Your task to perform on an android device: Search for Mexican restaurants on Maps Image 0: 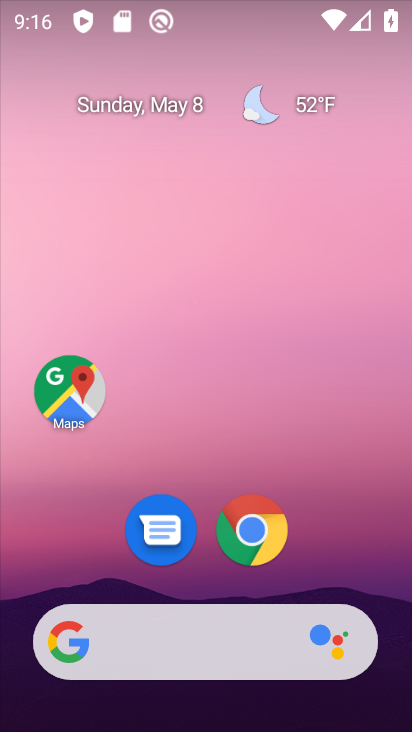
Step 0: click (63, 414)
Your task to perform on an android device: Search for Mexican restaurants on Maps Image 1: 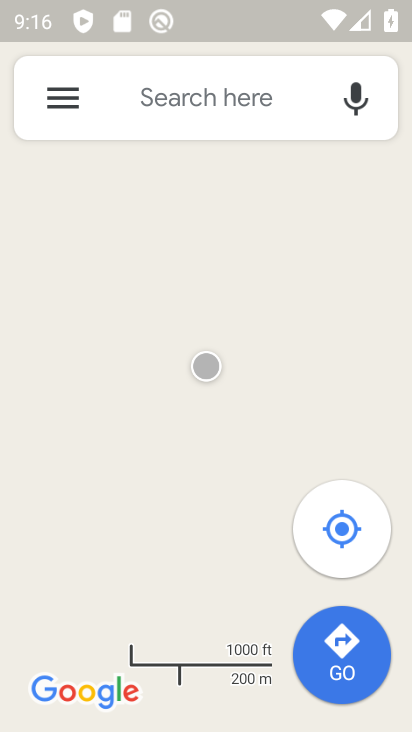
Step 1: click (76, 94)
Your task to perform on an android device: Search for Mexican restaurants on Maps Image 2: 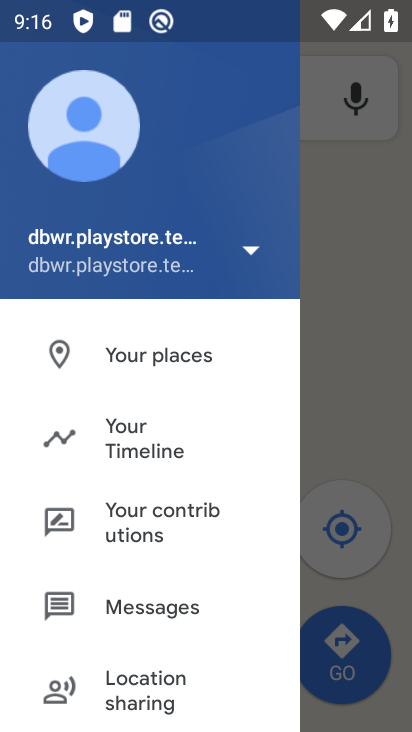
Step 2: click (290, 384)
Your task to perform on an android device: Search for Mexican restaurants on Maps Image 3: 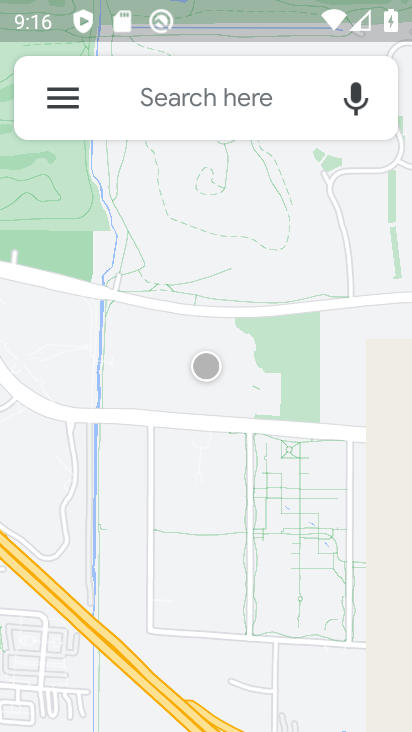
Step 3: click (327, 416)
Your task to perform on an android device: Search for Mexican restaurants on Maps Image 4: 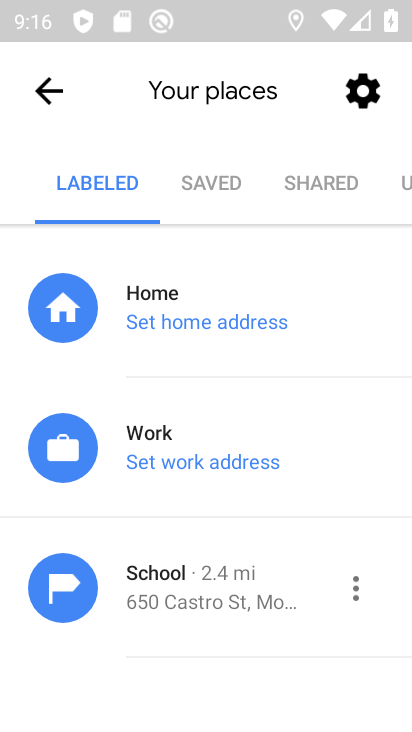
Step 4: click (42, 102)
Your task to perform on an android device: Search for Mexican restaurants on Maps Image 5: 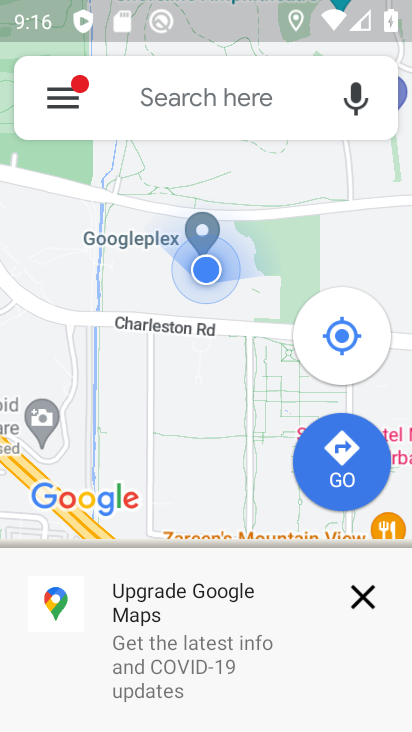
Step 5: click (172, 58)
Your task to perform on an android device: Search for Mexican restaurants on Maps Image 6: 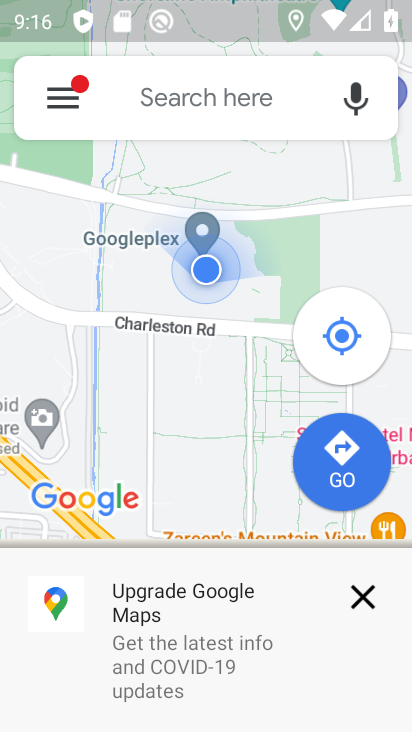
Step 6: click (171, 97)
Your task to perform on an android device: Search for Mexican restaurants on Maps Image 7: 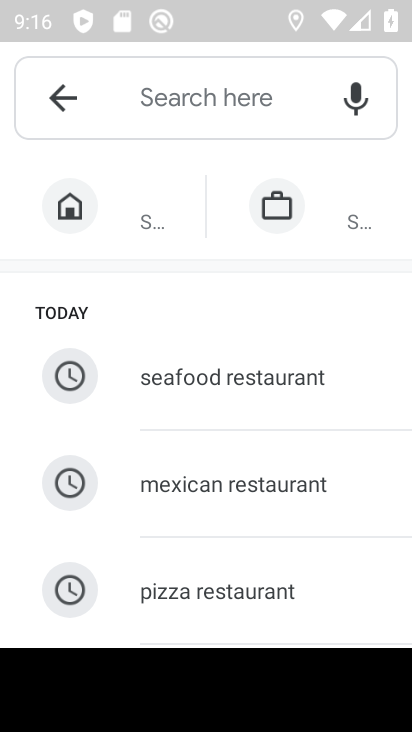
Step 7: click (227, 488)
Your task to perform on an android device: Search for Mexican restaurants on Maps Image 8: 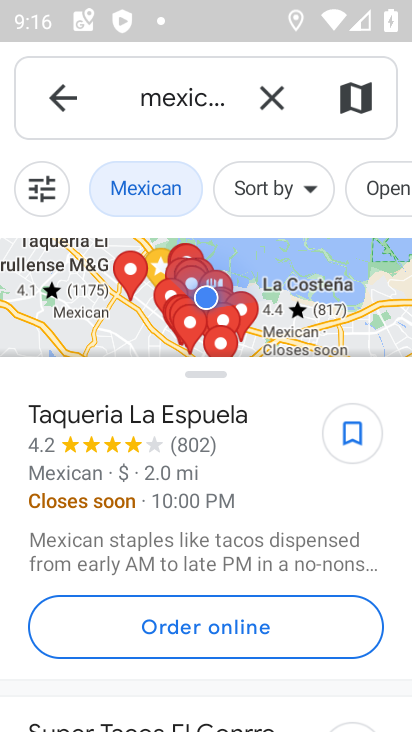
Step 8: task complete